Your task to perform on an android device: What's on my calendar today? Image 0: 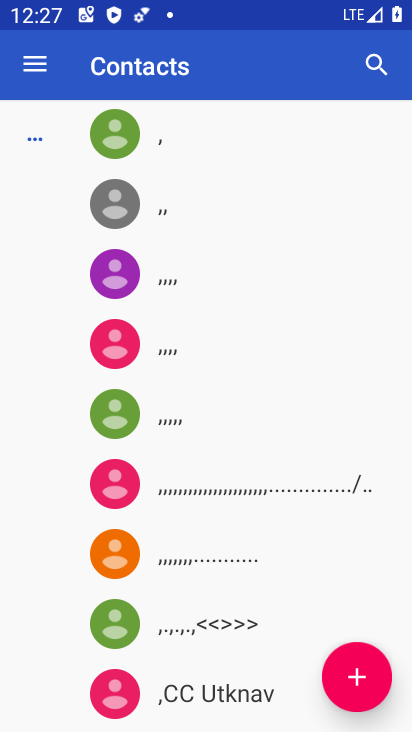
Step 0: press back button
Your task to perform on an android device: What's on my calendar today? Image 1: 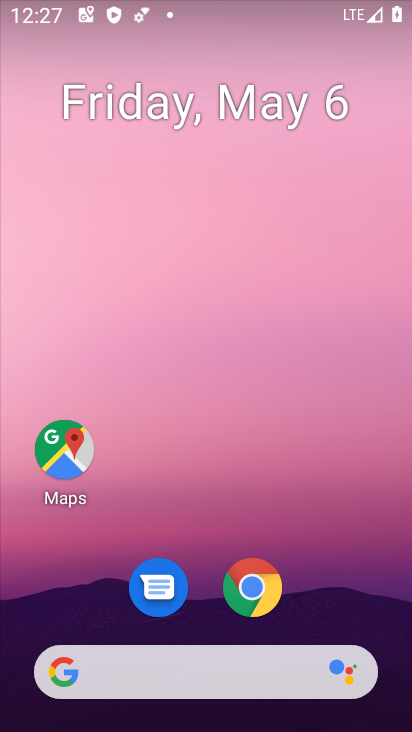
Step 1: drag from (155, 624) to (288, 67)
Your task to perform on an android device: What's on my calendar today? Image 2: 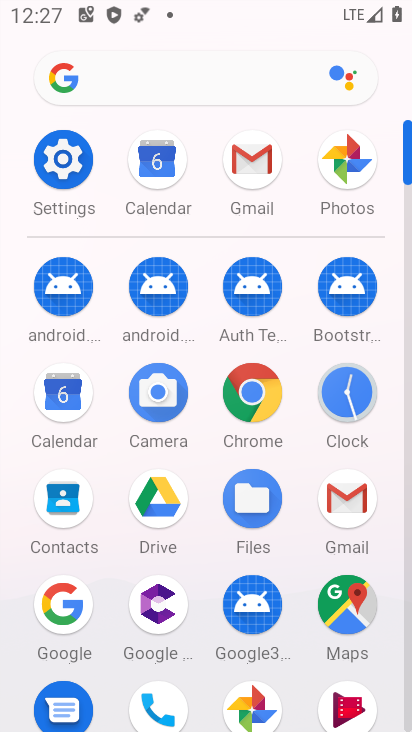
Step 2: click (66, 411)
Your task to perform on an android device: What's on my calendar today? Image 3: 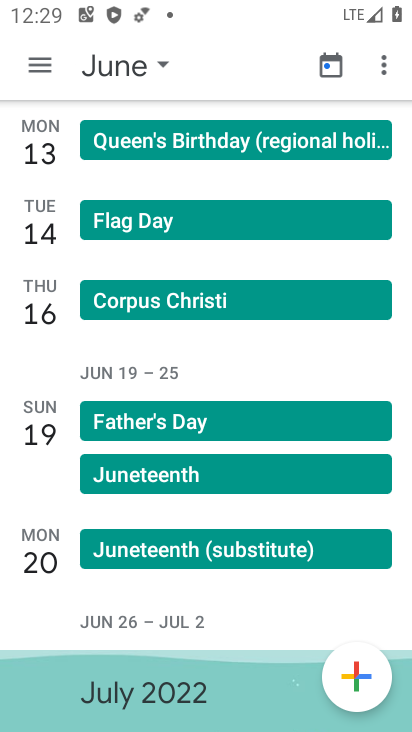
Step 3: click (139, 61)
Your task to perform on an android device: What's on my calendar today? Image 4: 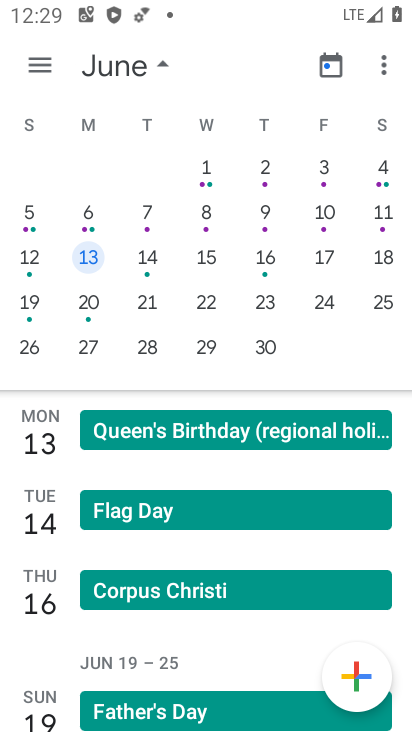
Step 4: drag from (28, 295) to (391, 258)
Your task to perform on an android device: What's on my calendar today? Image 5: 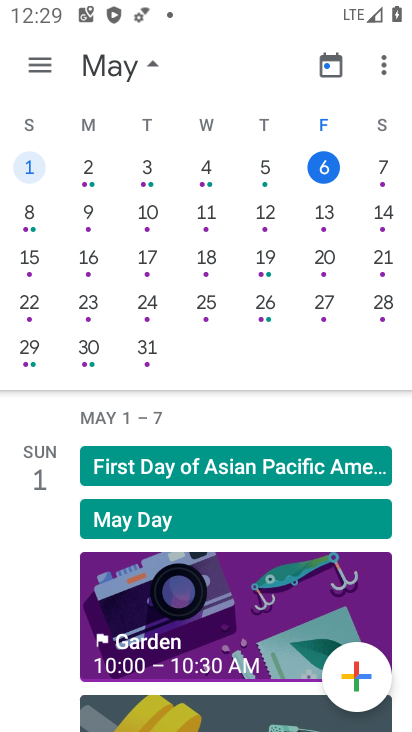
Step 5: click (328, 172)
Your task to perform on an android device: What's on my calendar today? Image 6: 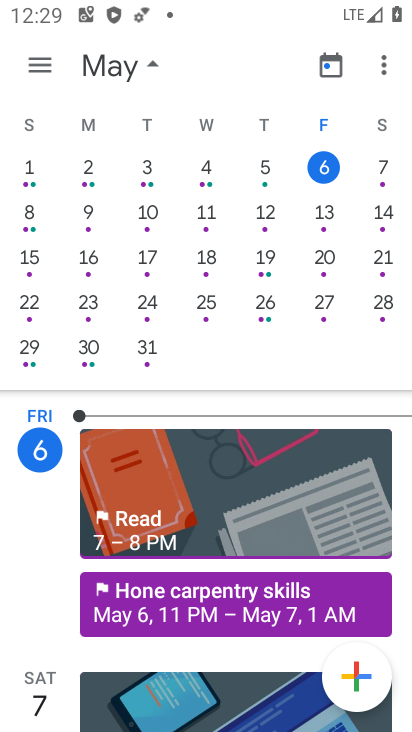
Step 6: drag from (206, 652) to (294, 215)
Your task to perform on an android device: What's on my calendar today? Image 7: 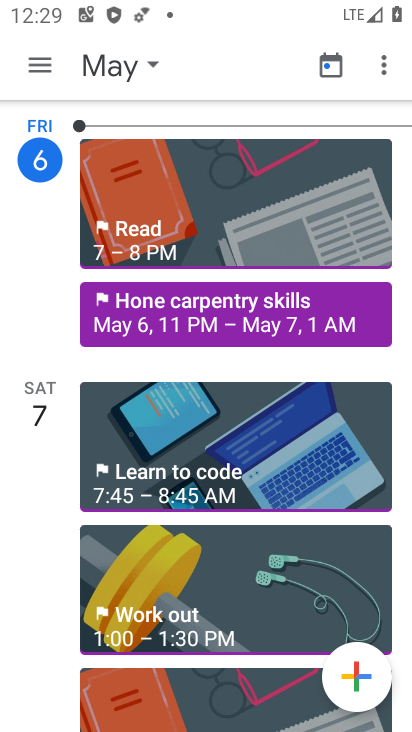
Step 7: click (210, 323)
Your task to perform on an android device: What's on my calendar today? Image 8: 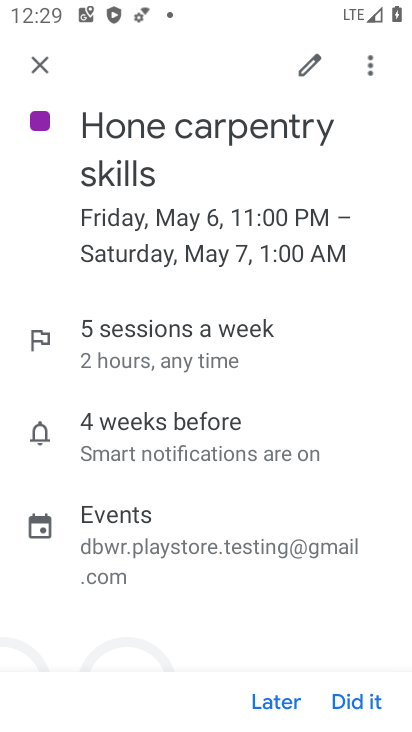
Step 8: task complete